Your task to perform on an android device: Open maps Image 0: 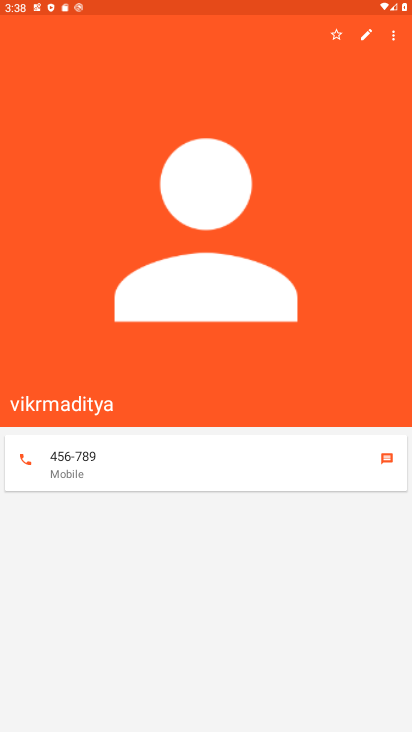
Step 0: press home button
Your task to perform on an android device: Open maps Image 1: 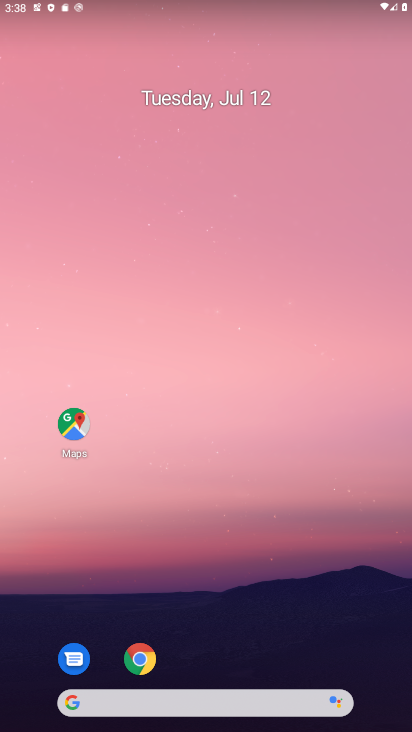
Step 1: drag from (182, 672) to (182, 164)
Your task to perform on an android device: Open maps Image 2: 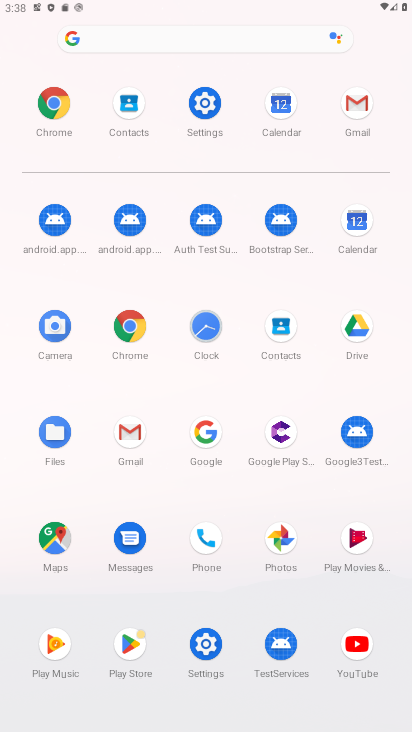
Step 2: click (45, 537)
Your task to perform on an android device: Open maps Image 3: 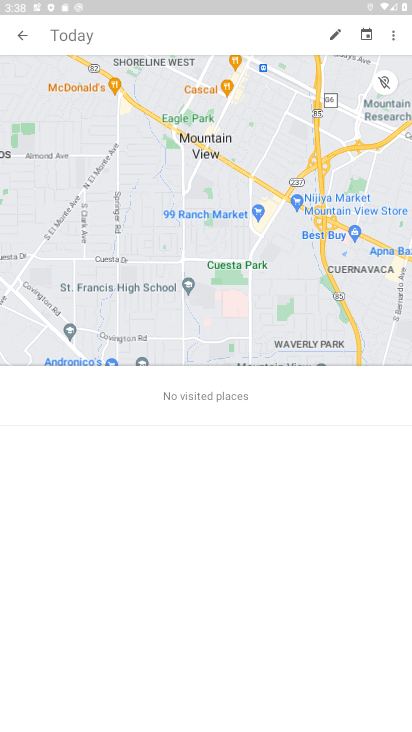
Step 3: task complete